Your task to perform on an android device: Open eBay Image 0: 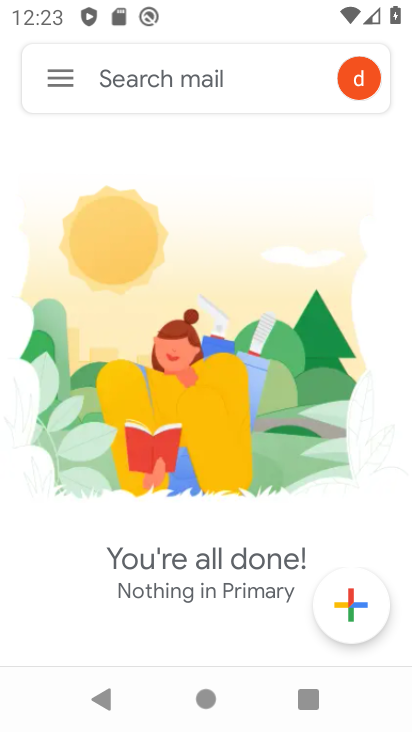
Step 0: press home button
Your task to perform on an android device: Open eBay Image 1: 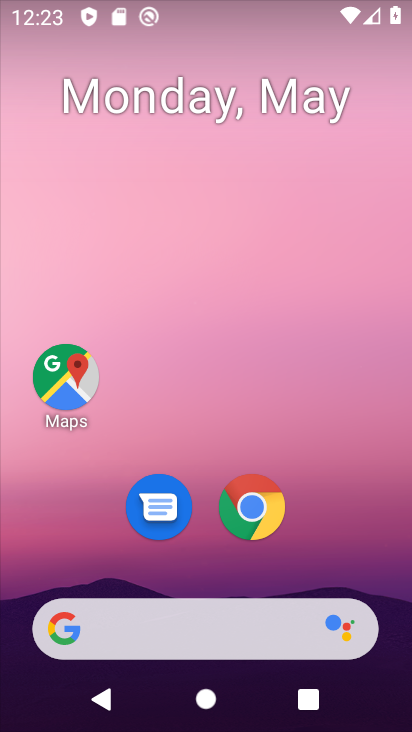
Step 1: click (252, 508)
Your task to perform on an android device: Open eBay Image 2: 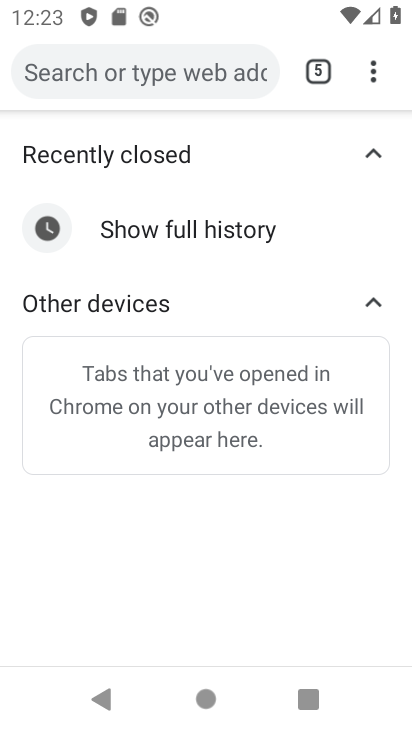
Step 2: click (374, 77)
Your task to perform on an android device: Open eBay Image 3: 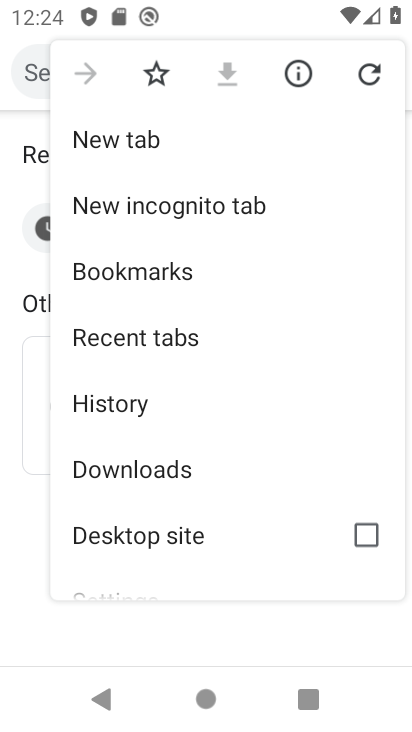
Step 3: click (114, 141)
Your task to perform on an android device: Open eBay Image 4: 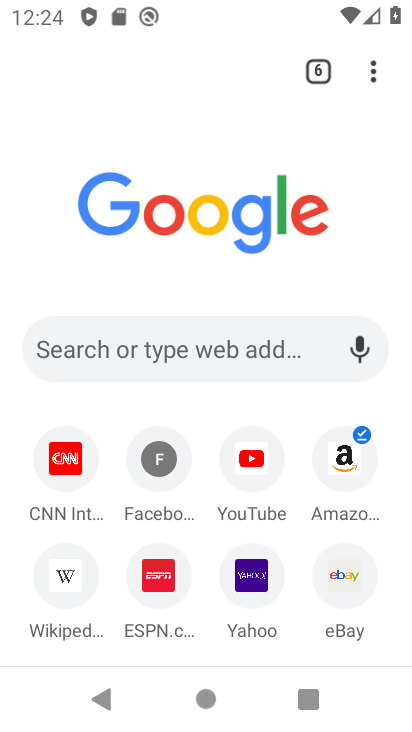
Step 4: click (345, 579)
Your task to perform on an android device: Open eBay Image 5: 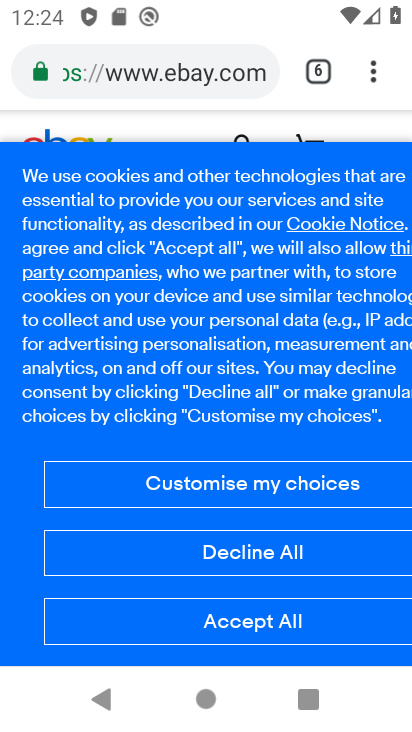
Step 5: task complete